Your task to perform on an android device: turn on javascript in the chrome app Image 0: 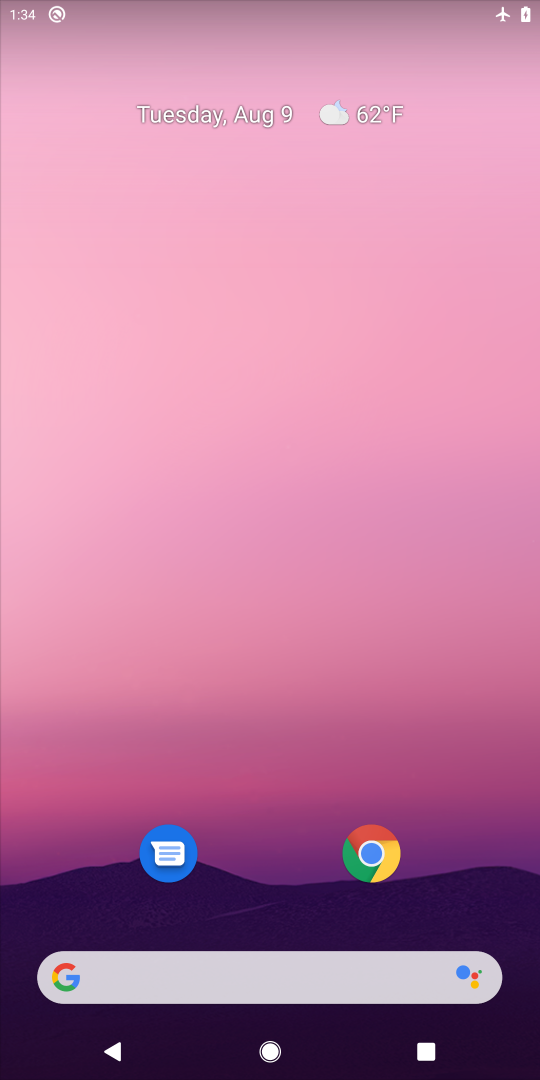
Step 0: press home button
Your task to perform on an android device: turn on javascript in the chrome app Image 1: 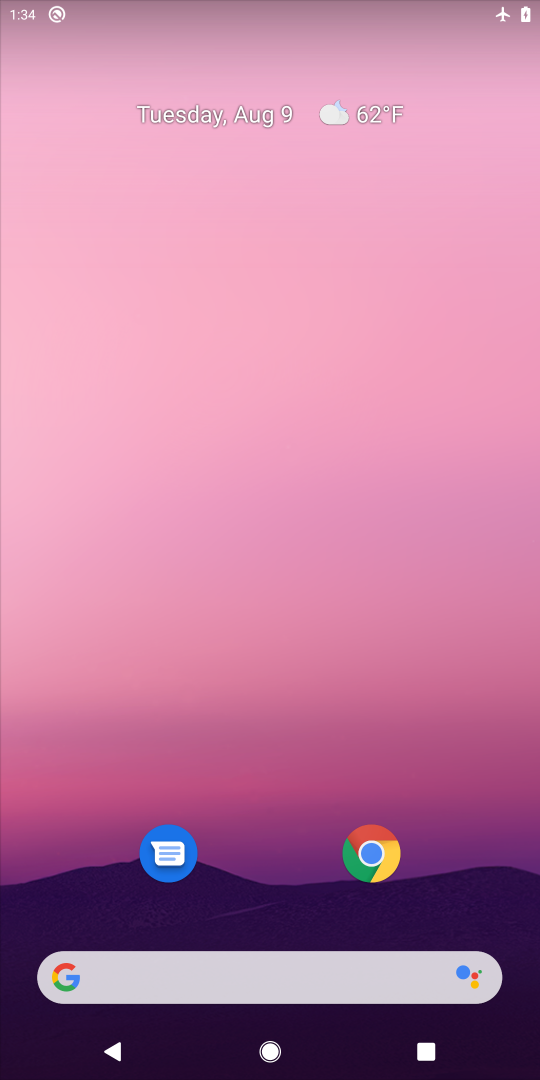
Step 1: click (388, 858)
Your task to perform on an android device: turn on javascript in the chrome app Image 2: 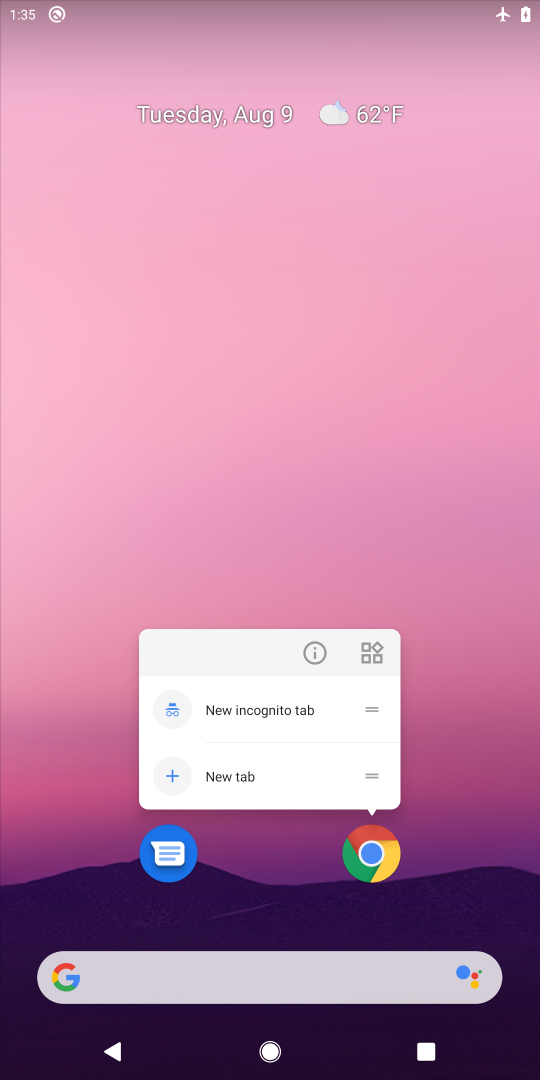
Step 2: click (386, 856)
Your task to perform on an android device: turn on javascript in the chrome app Image 3: 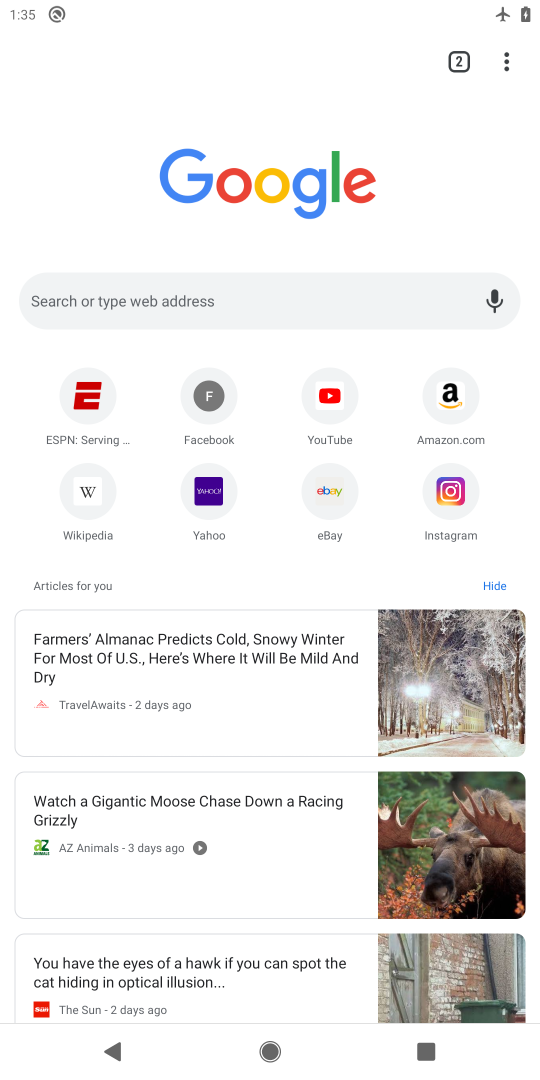
Step 3: drag from (508, 67) to (281, 580)
Your task to perform on an android device: turn on javascript in the chrome app Image 4: 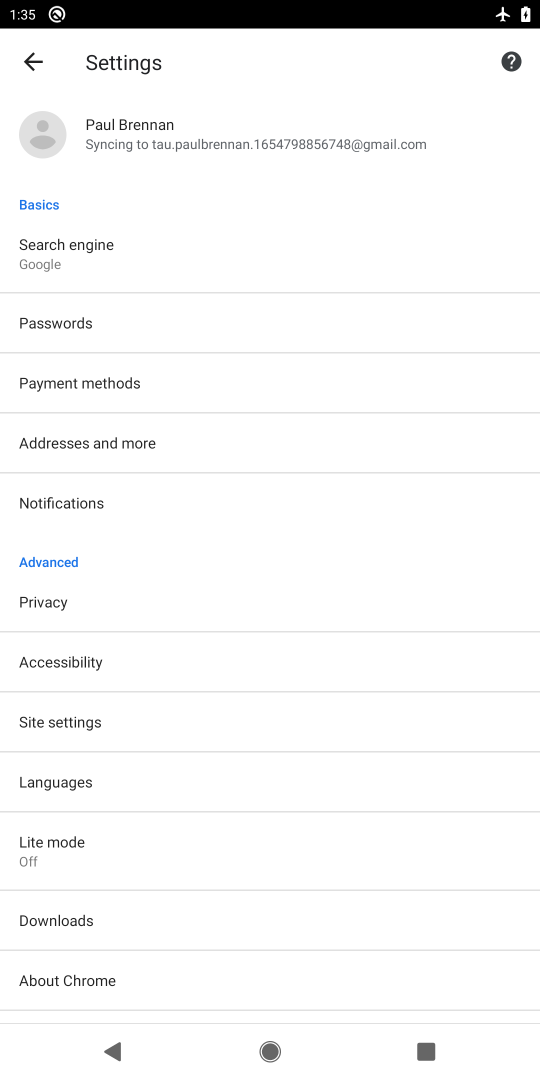
Step 4: click (104, 719)
Your task to perform on an android device: turn on javascript in the chrome app Image 5: 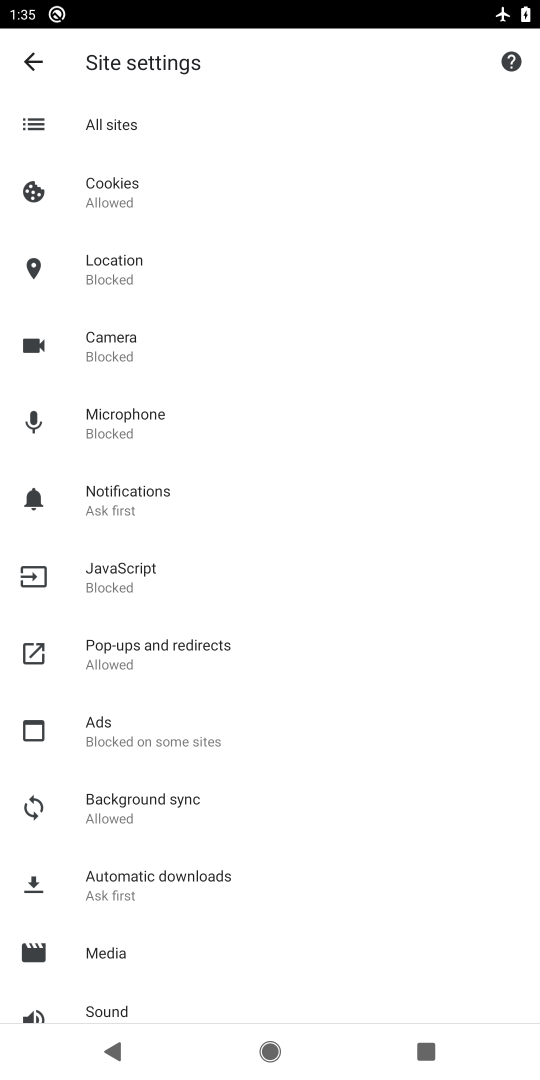
Step 5: click (160, 575)
Your task to perform on an android device: turn on javascript in the chrome app Image 6: 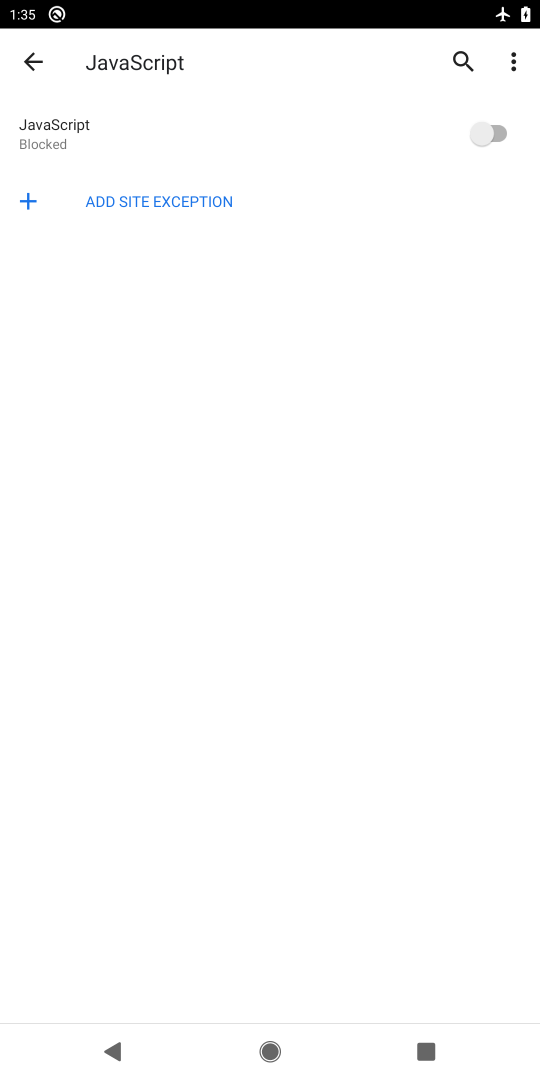
Step 6: click (502, 141)
Your task to perform on an android device: turn on javascript in the chrome app Image 7: 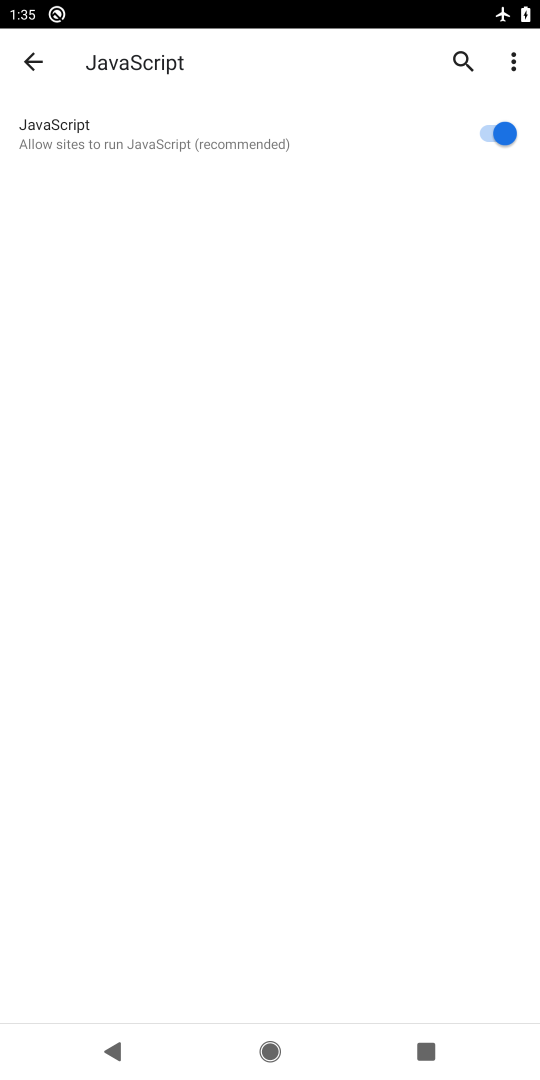
Step 7: task complete